Your task to perform on an android device: turn on translation in the chrome app Image 0: 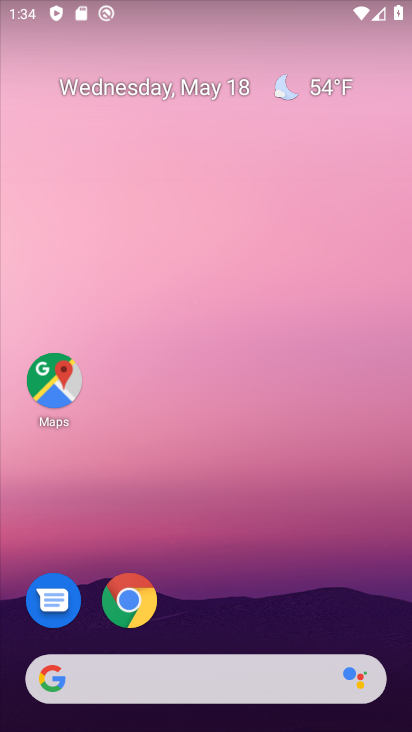
Step 0: click (135, 594)
Your task to perform on an android device: turn on translation in the chrome app Image 1: 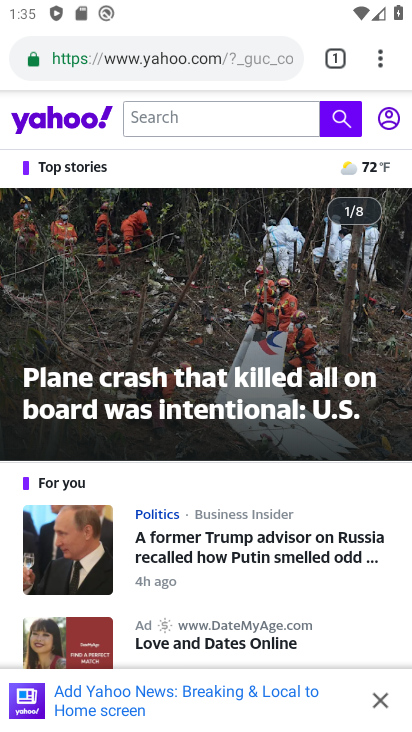
Step 1: click (386, 54)
Your task to perform on an android device: turn on translation in the chrome app Image 2: 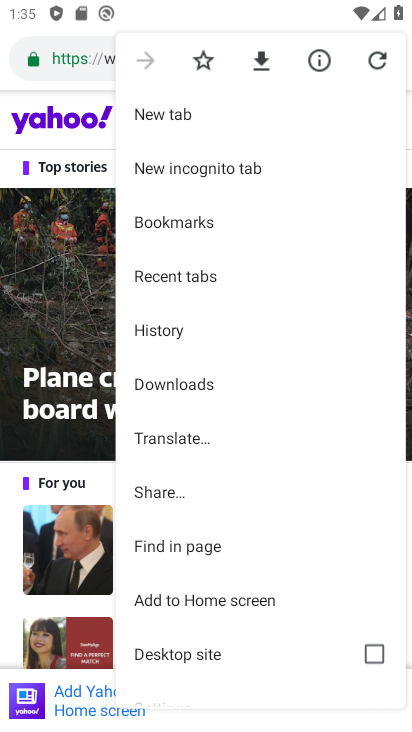
Step 2: drag from (272, 523) to (261, 109)
Your task to perform on an android device: turn on translation in the chrome app Image 3: 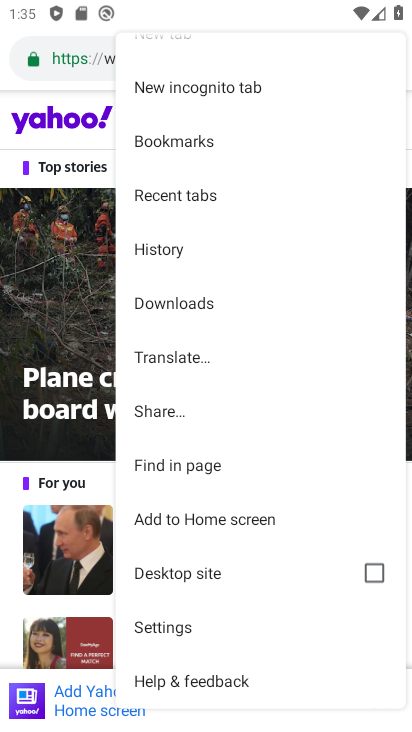
Step 3: click (165, 641)
Your task to perform on an android device: turn on translation in the chrome app Image 4: 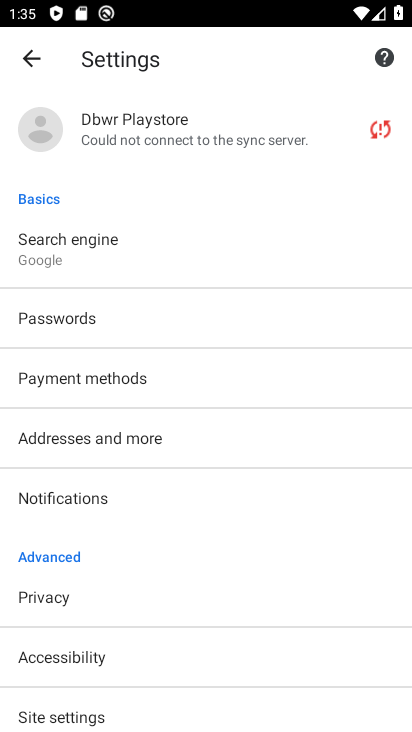
Step 4: drag from (165, 641) to (262, 209)
Your task to perform on an android device: turn on translation in the chrome app Image 5: 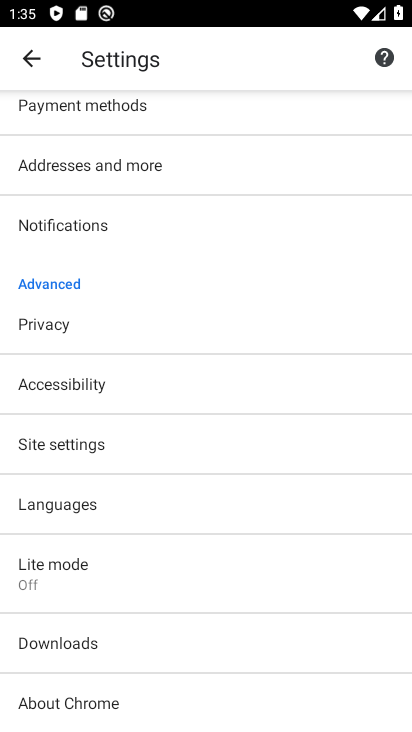
Step 5: click (117, 442)
Your task to perform on an android device: turn on translation in the chrome app Image 6: 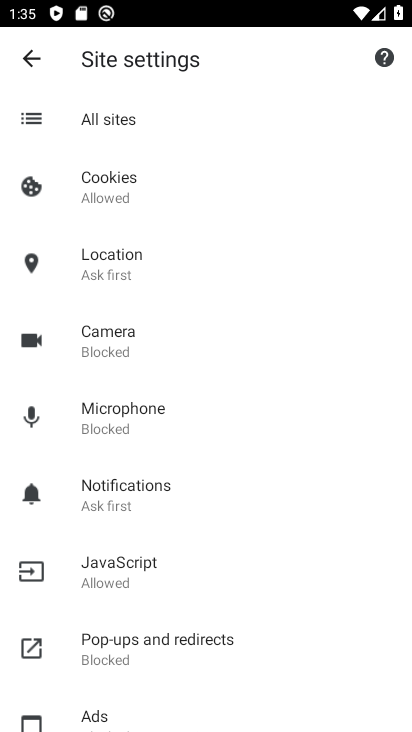
Step 6: click (29, 57)
Your task to perform on an android device: turn on translation in the chrome app Image 7: 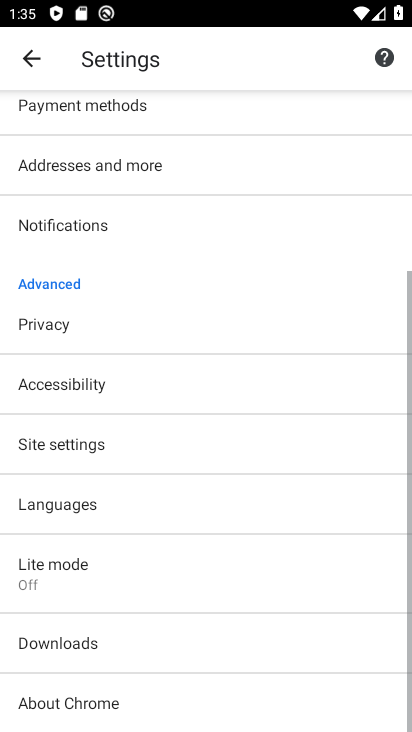
Step 7: click (109, 486)
Your task to perform on an android device: turn on translation in the chrome app Image 8: 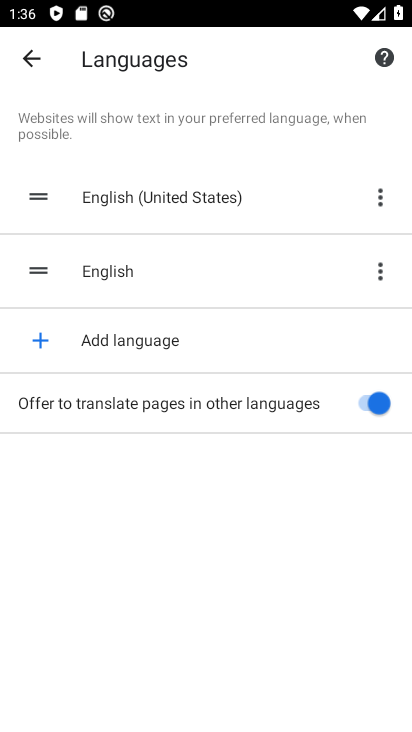
Step 8: task complete